Your task to perform on an android device: turn on wifi Image 0: 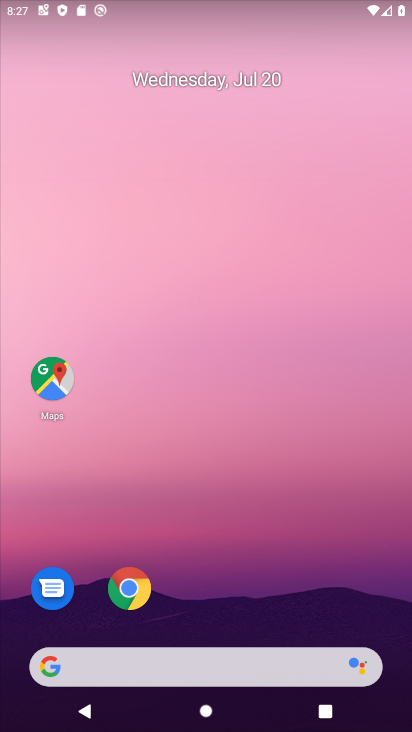
Step 0: drag from (170, 7) to (232, 536)
Your task to perform on an android device: turn on wifi Image 1: 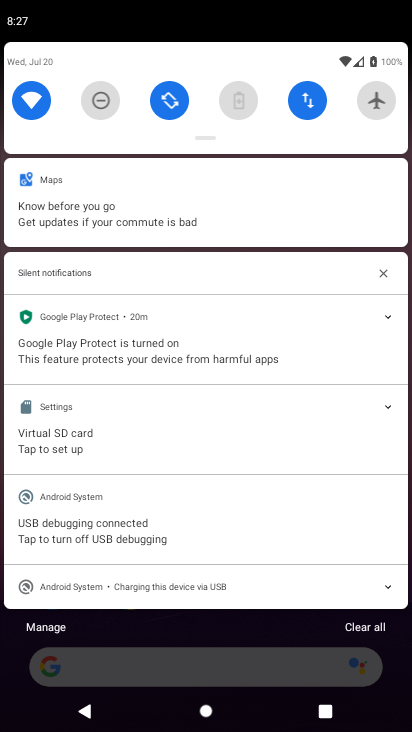
Step 1: task complete